Your task to perform on an android device: move a message to another label in the gmail app Image 0: 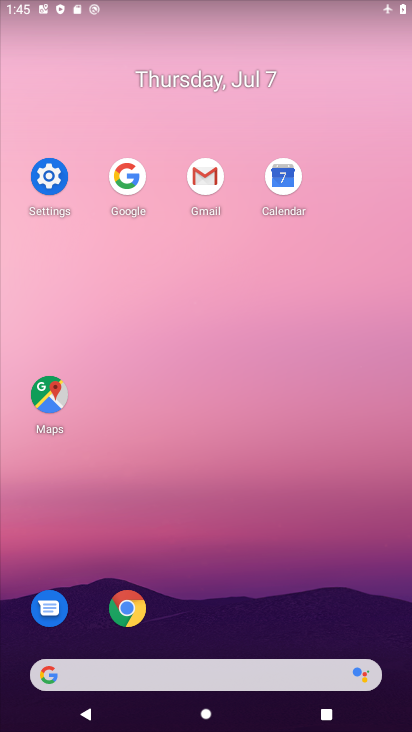
Step 0: click (204, 178)
Your task to perform on an android device: move a message to another label in the gmail app Image 1: 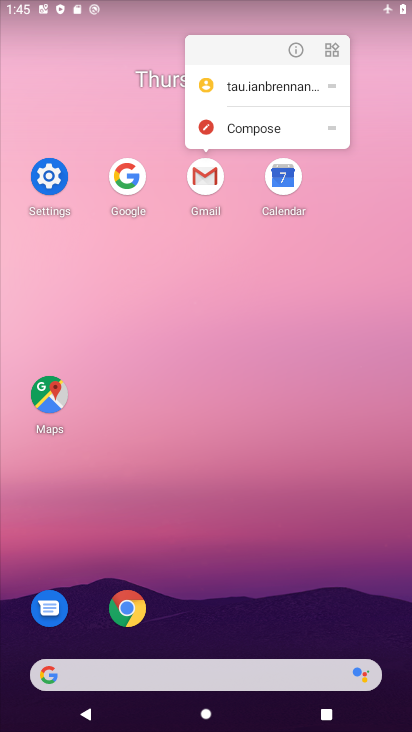
Step 1: click (204, 177)
Your task to perform on an android device: move a message to another label in the gmail app Image 2: 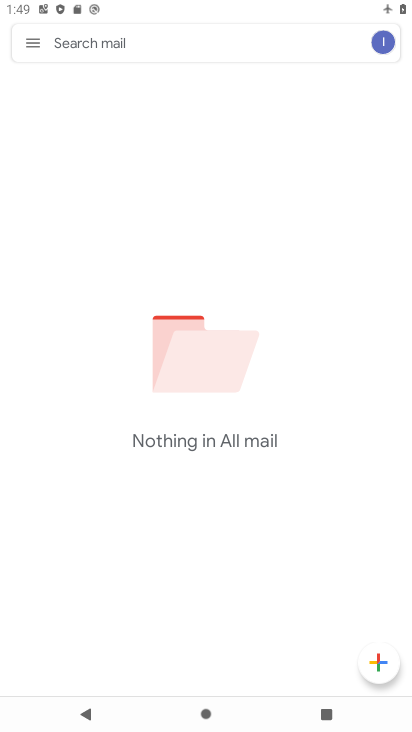
Step 2: task complete